Your task to perform on an android device: Open calendar and show me the second week of next month Image 0: 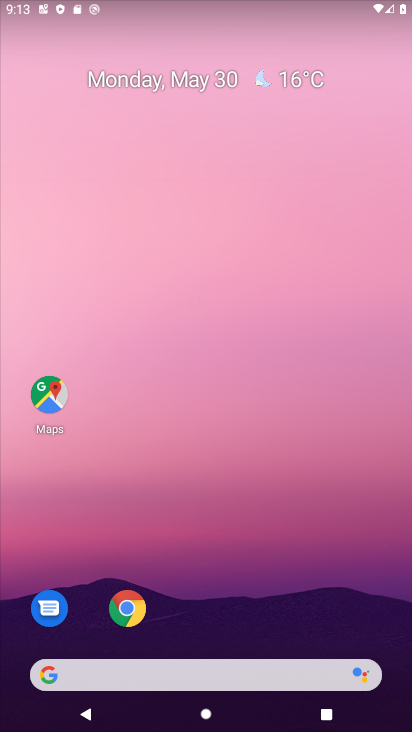
Step 0: drag from (392, 701) to (355, 91)
Your task to perform on an android device: Open calendar and show me the second week of next month Image 1: 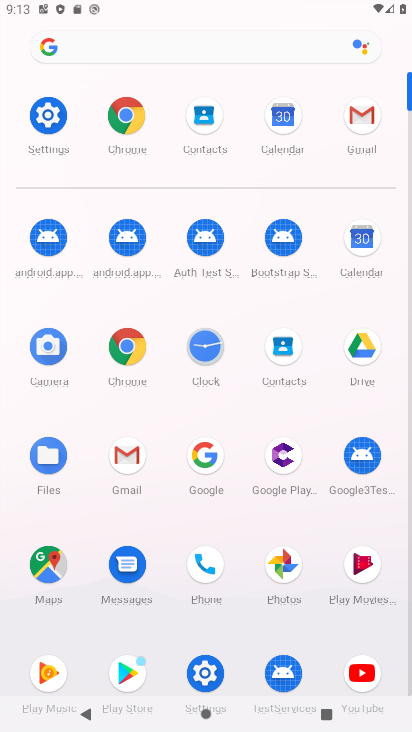
Step 1: click (352, 241)
Your task to perform on an android device: Open calendar and show me the second week of next month Image 2: 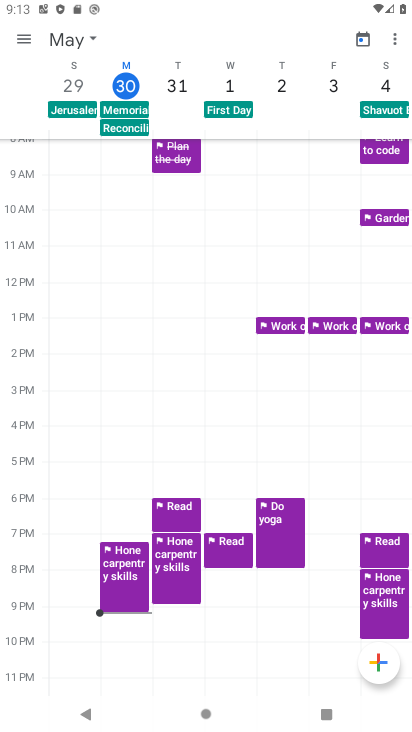
Step 2: click (89, 38)
Your task to perform on an android device: Open calendar and show me the second week of next month Image 3: 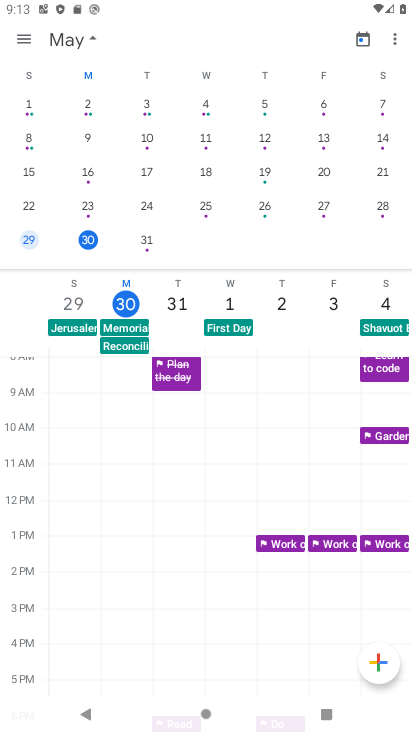
Step 3: drag from (391, 185) to (62, 126)
Your task to perform on an android device: Open calendar and show me the second week of next month Image 4: 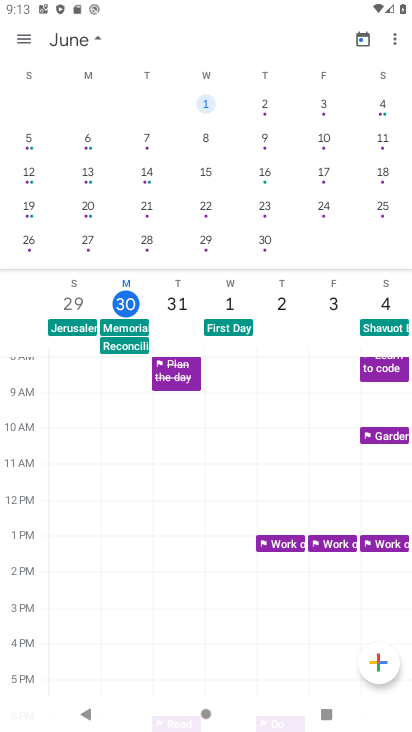
Step 4: click (148, 136)
Your task to perform on an android device: Open calendar and show me the second week of next month Image 5: 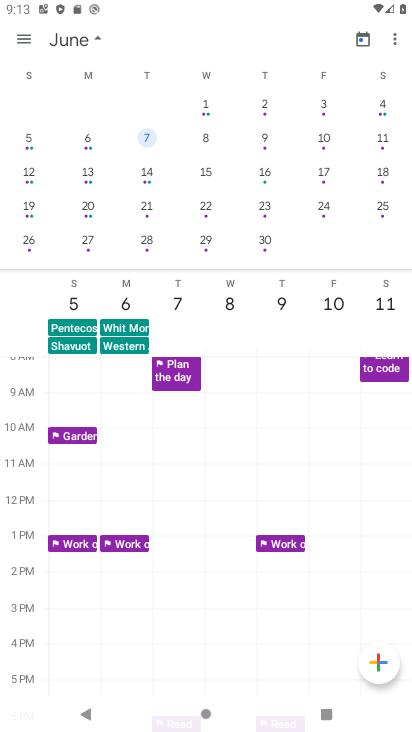
Step 5: click (33, 33)
Your task to perform on an android device: Open calendar and show me the second week of next month Image 6: 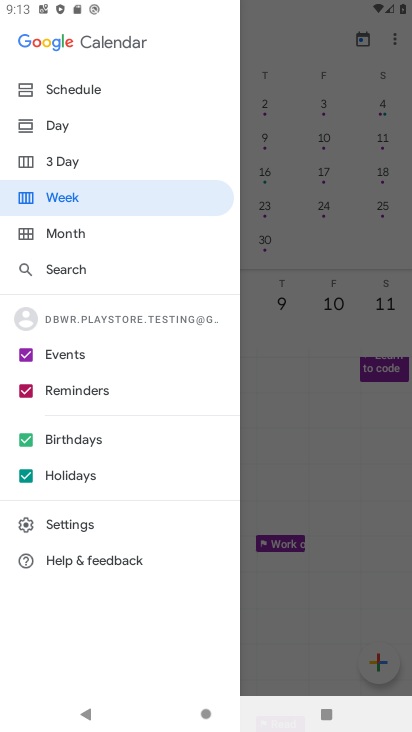
Step 6: click (61, 201)
Your task to perform on an android device: Open calendar and show me the second week of next month Image 7: 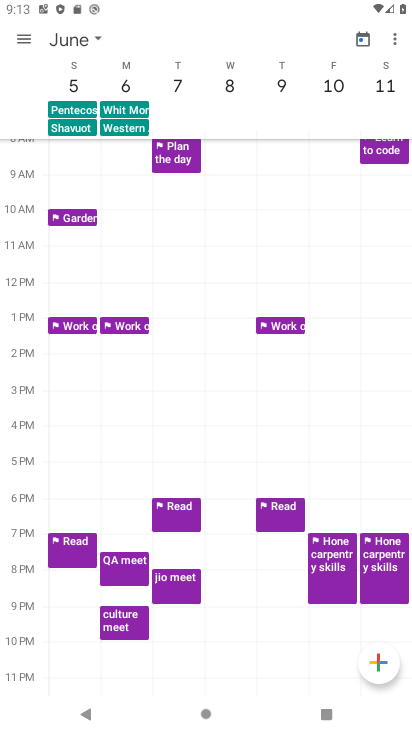
Step 7: task complete